Your task to perform on an android device: Open Chrome and go to the settings page Image 0: 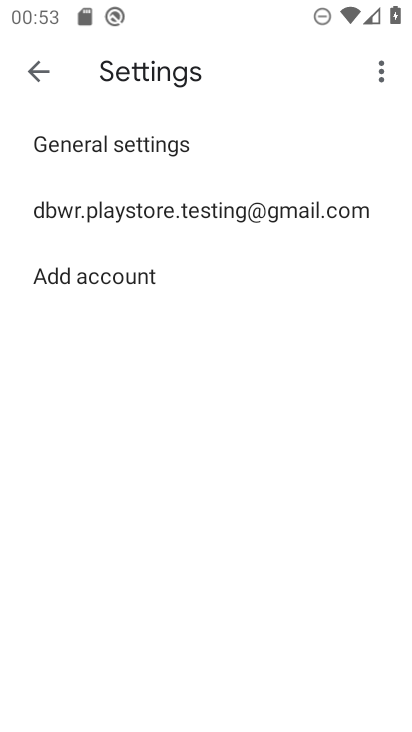
Step 0: press home button
Your task to perform on an android device: Open Chrome and go to the settings page Image 1: 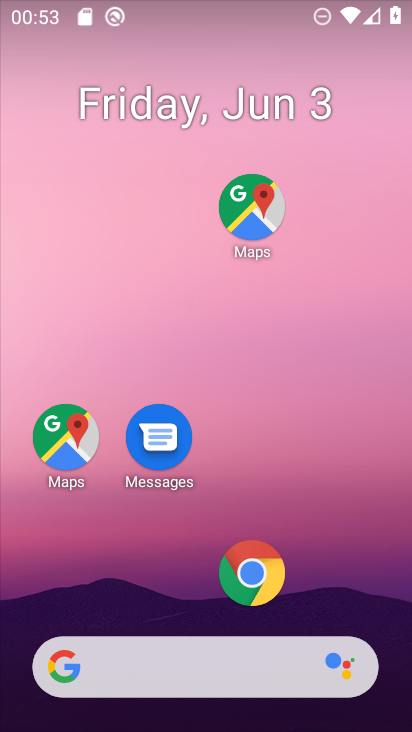
Step 1: click (260, 590)
Your task to perform on an android device: Open Chrome and go to the settings page Image 2: 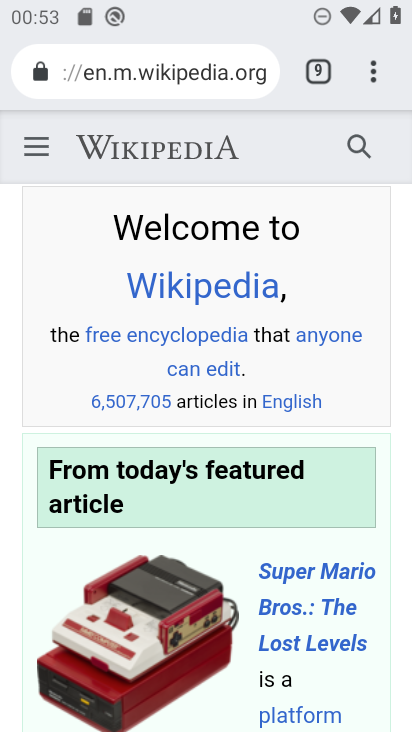
Step 2: click (371, 67)
Your task to perform on an android device: Open Chrome and go to the settings page Image 3: 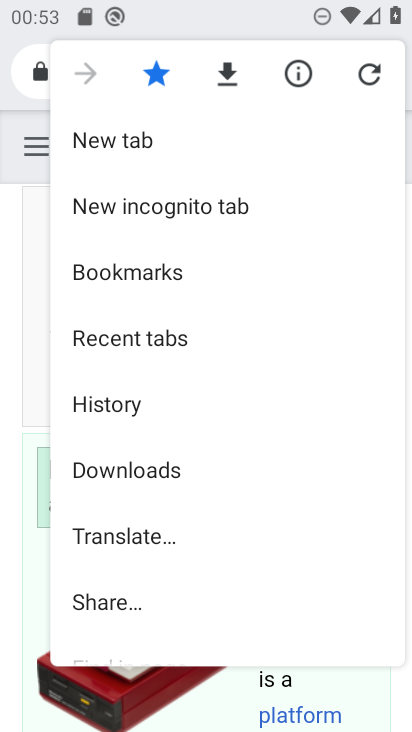
Step 3: drag from (86, 593) to (156, 84)
Your task to perform on an android device: Open Chrome and go to the settings page Image 4: 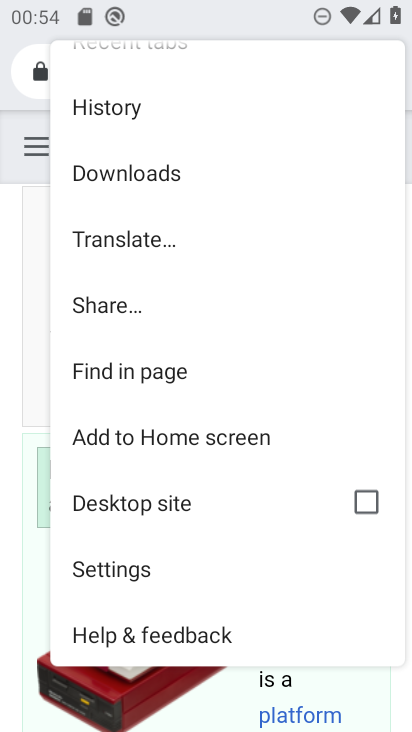
Step 4: click (89, 574)
Your task to perform on an android device: Open Chrome and go to the settings page Image 5: 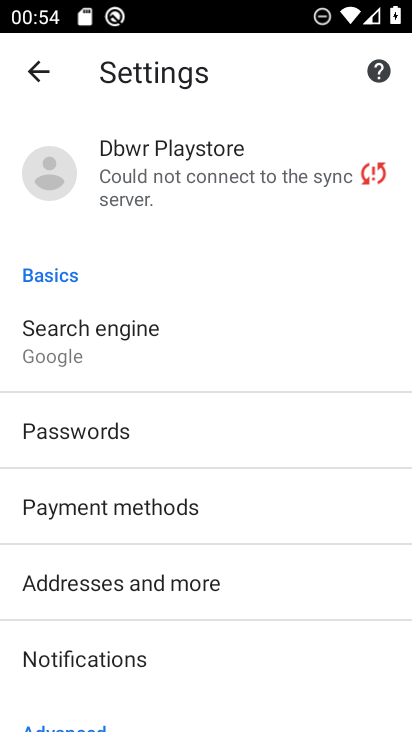
Step 5: task complete